Your task to perform on an android device: Open ESPN.com Image 0: 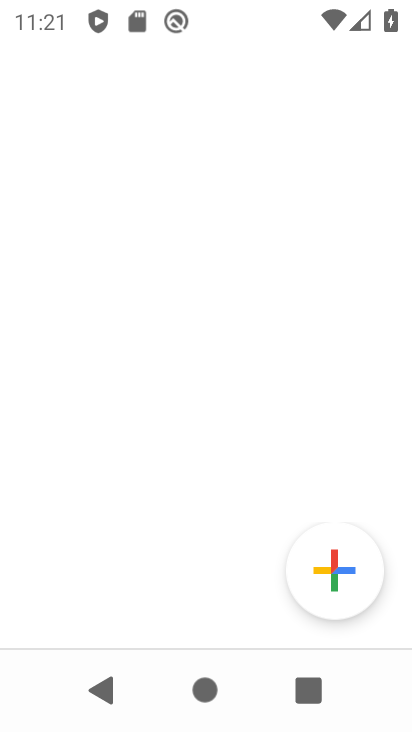
Step 0: press home button
Your task to perform on an android device: Open ESPN.com Image 1: 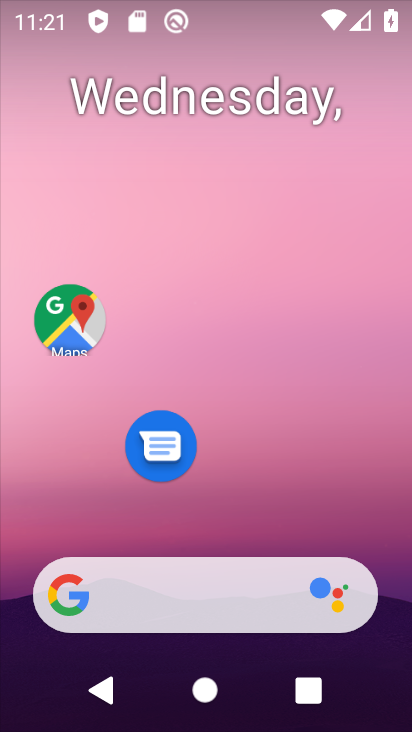
Step 1: drag from (209, 406) to (244, 96)
Your task to perform on an android device: Open ESPN.com Image 2: 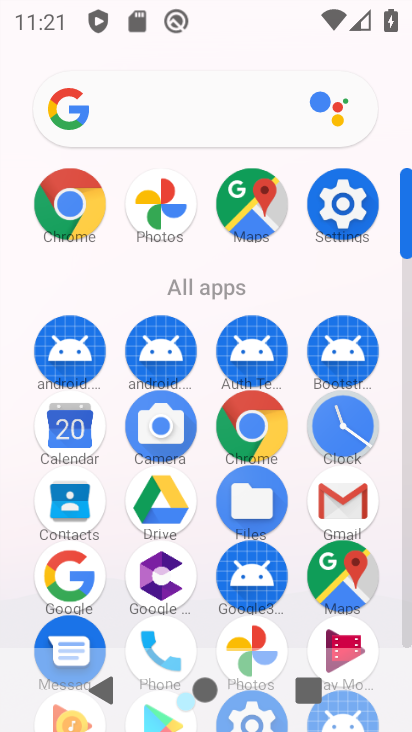
Step 2: click (72, 206)
Your task to perform on an android device: Open ESPN.com Image 3: 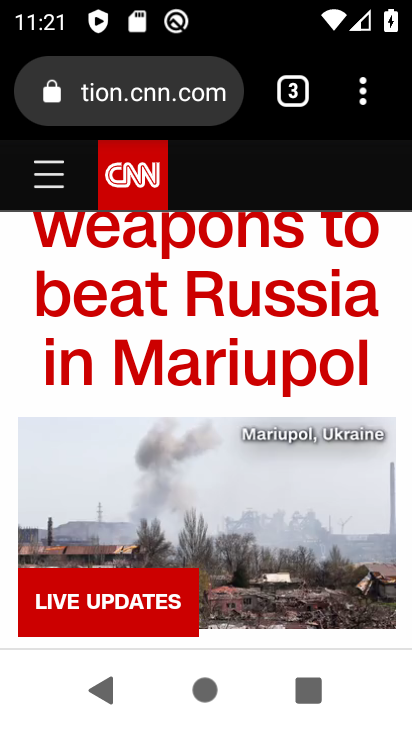
Step 3: click (296, 86)
Your task to perform on an android device: Open ESPN.com Image 4: 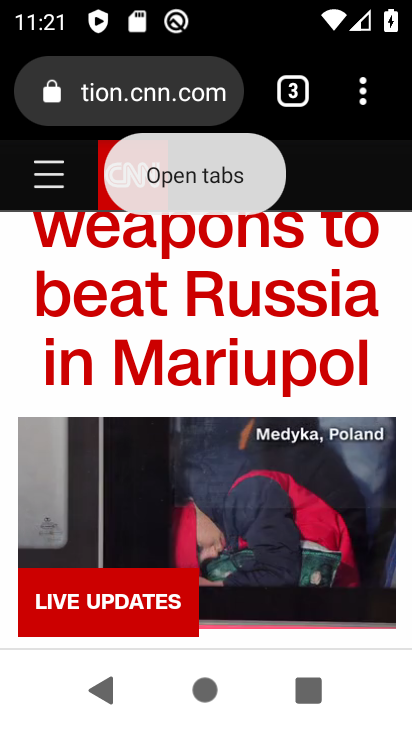
Step 4: click (296, 86)
Your task to perform on an android device: Open ESPN.com Image 5: 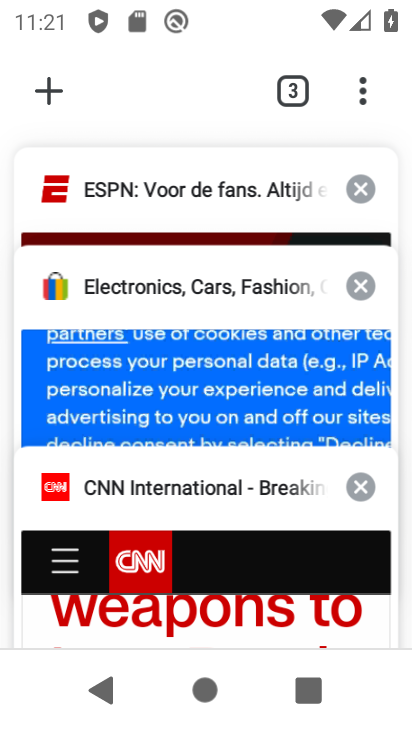
Step 5: click (136, 188)
Your task to perform on an android device: Open ESPN.com Image 6: 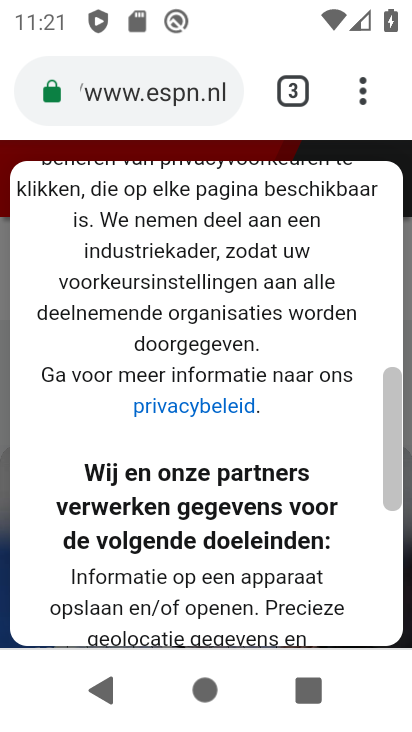
Step 6: task complete